Your task to perform on an android device: open wifi settings Image 0: 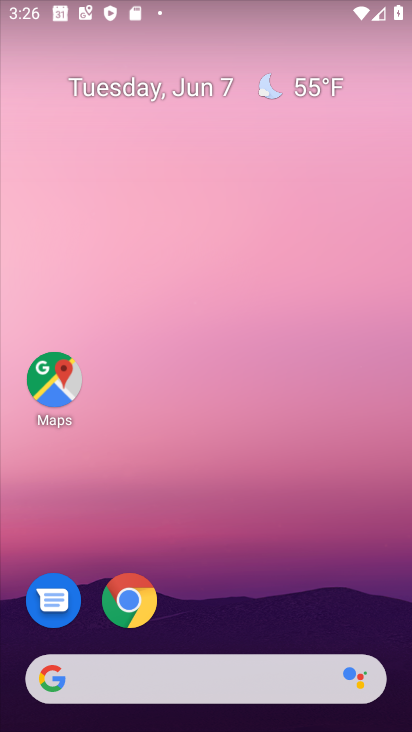
Step 0: drag from (199, 628) to (163, 100)
Your task to perform on an android device: open wifi settings Image 1: 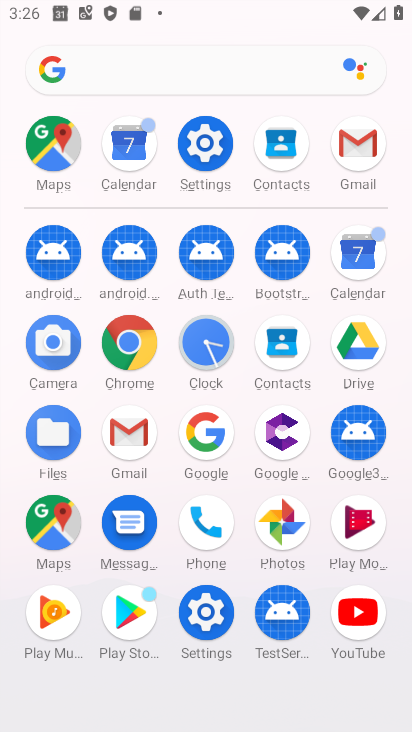
Step 1: click (212, 626)
Your task to perform on an android device: open wifi settings Image 2: 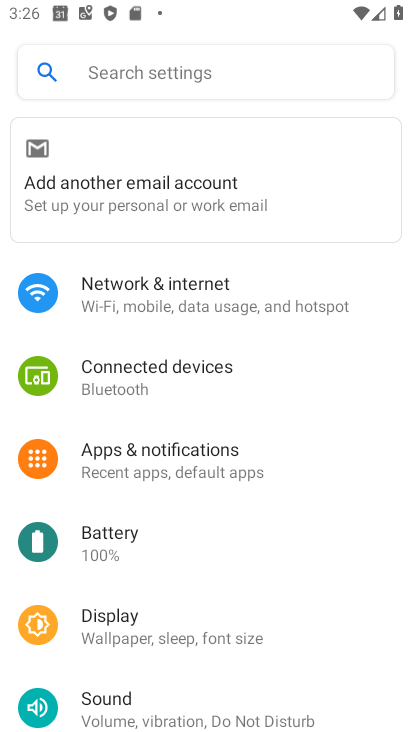
Step 2: click (151, 299)
Your task to perform on an android device: open wifi settings Image 3: 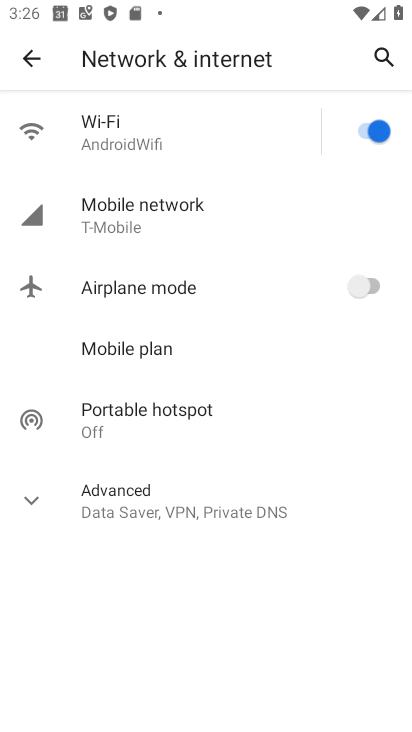
Step 3: click (151, 137)
Your task to perform on an android device: open wifi settings Image 4: 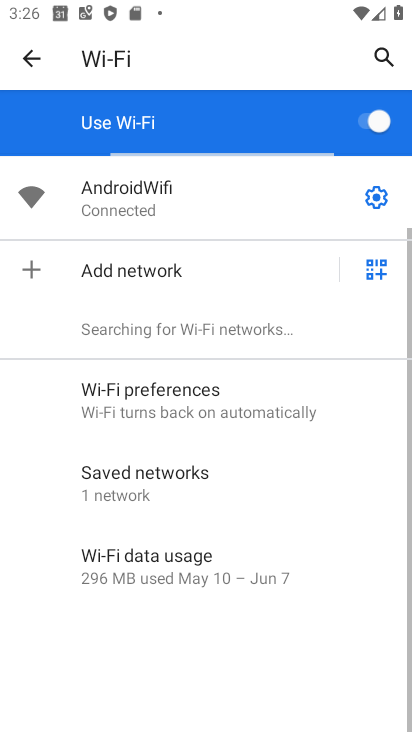
Step 4: task complete